Your task to perform on an android device: Search for Italian restaurants on Maps Image 0: 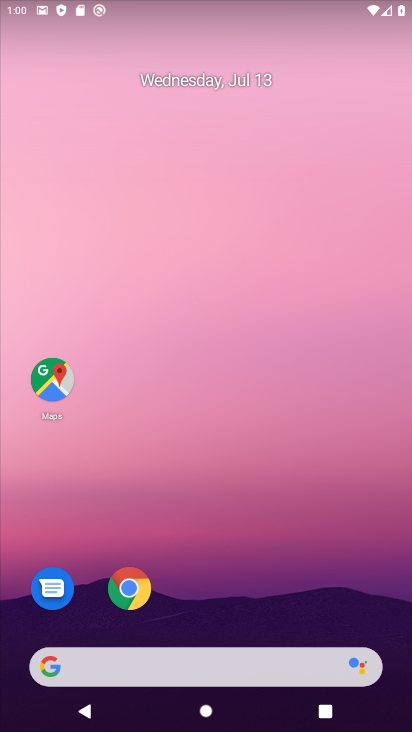
Step 0: press home button
Your task to perform on an android device: Search for Italian restaurants on Maps Image 1: 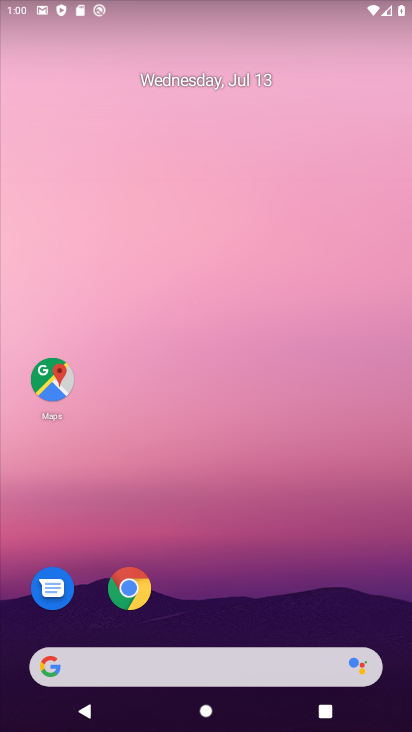
Step 1: drag from (337, 662) to (237, 291)
Your task to perform on an android device: Search for Italian restaurants on Maps Image 2: 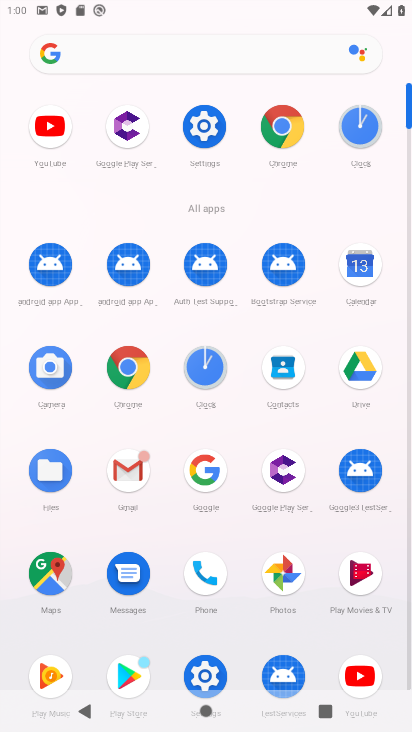
Step 2: click (61, 565)
Your task to perform on an android device: Search for Italian restaurants on Maps Image 3: 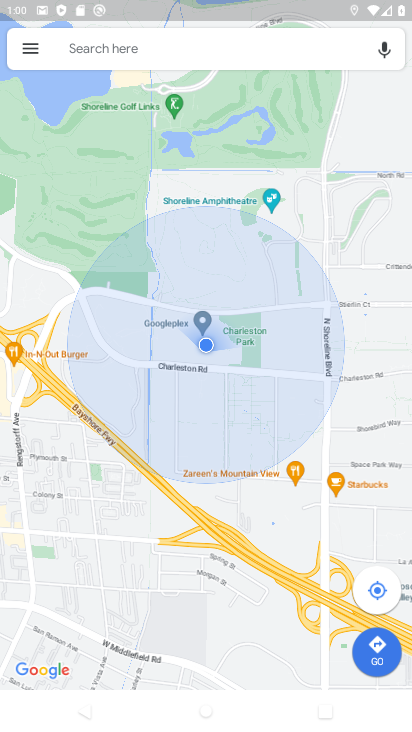
Step 3: click (297, 41)
Your task to perform on an android device: Search for Italian restaurants on Maps Image 4: 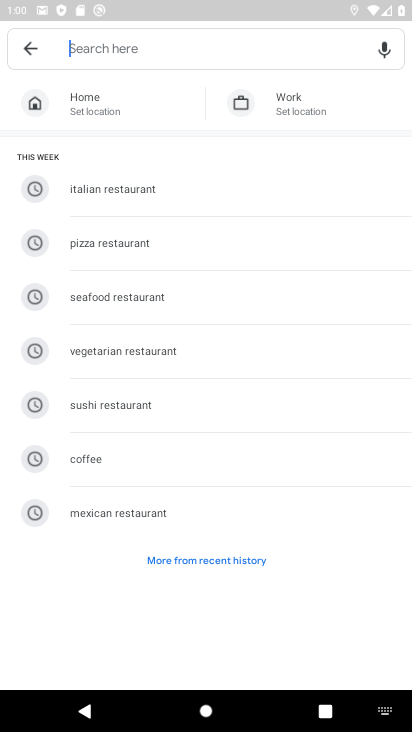
Step 4: type " Italian restaurants "
Your task to perform on an android device: Search for Italian restaurants on Maps Image 5: 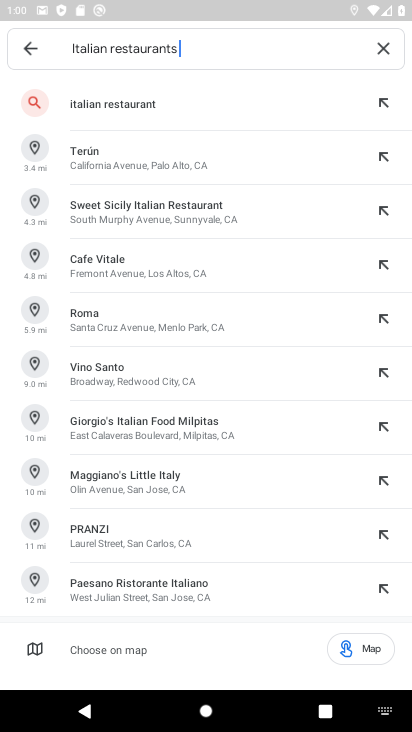
Step 5: click (141, 111)
Your task to perform on an android device: Search for Italian restaurants on Maps Image 6: 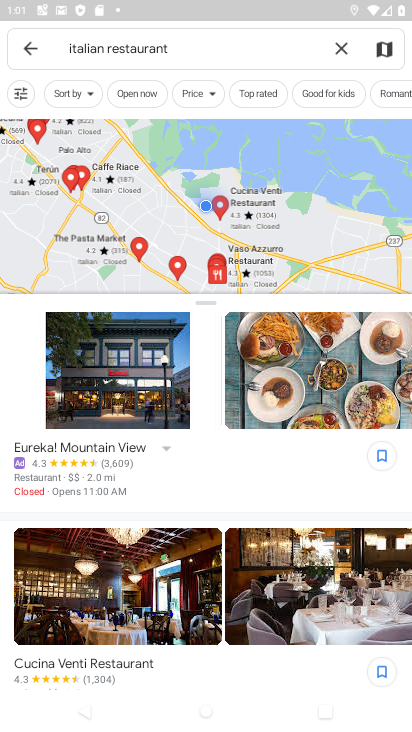
Step 6: task complete